Your task to perform on an android device: see creations saved in the google photos Image 0: 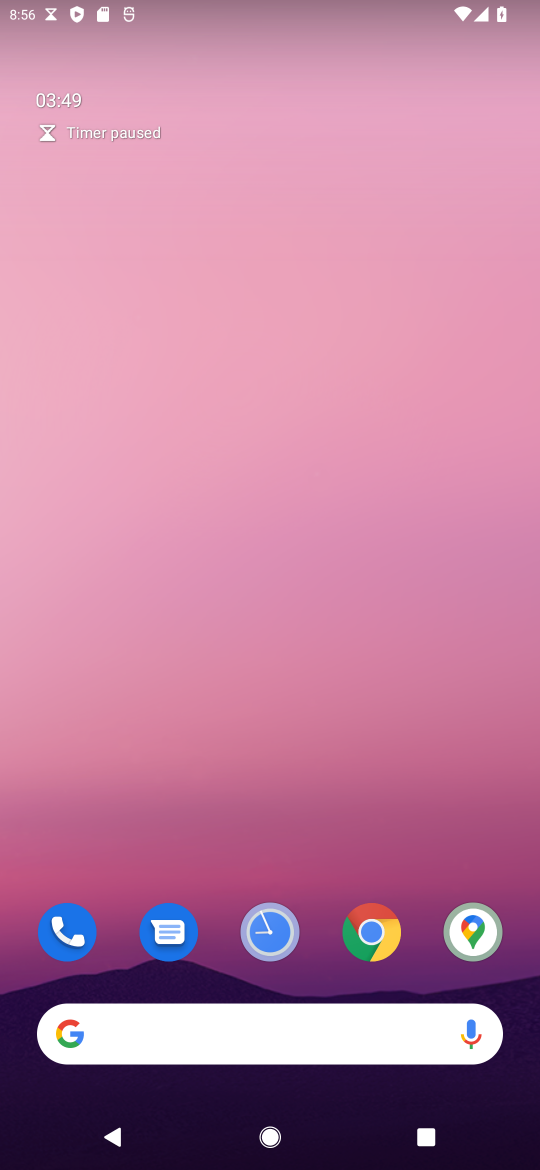
Step 0: drag from (223, 1056) to (404, 203)
Your task to perform on an android device: see creations saved in the google photos Image 1: 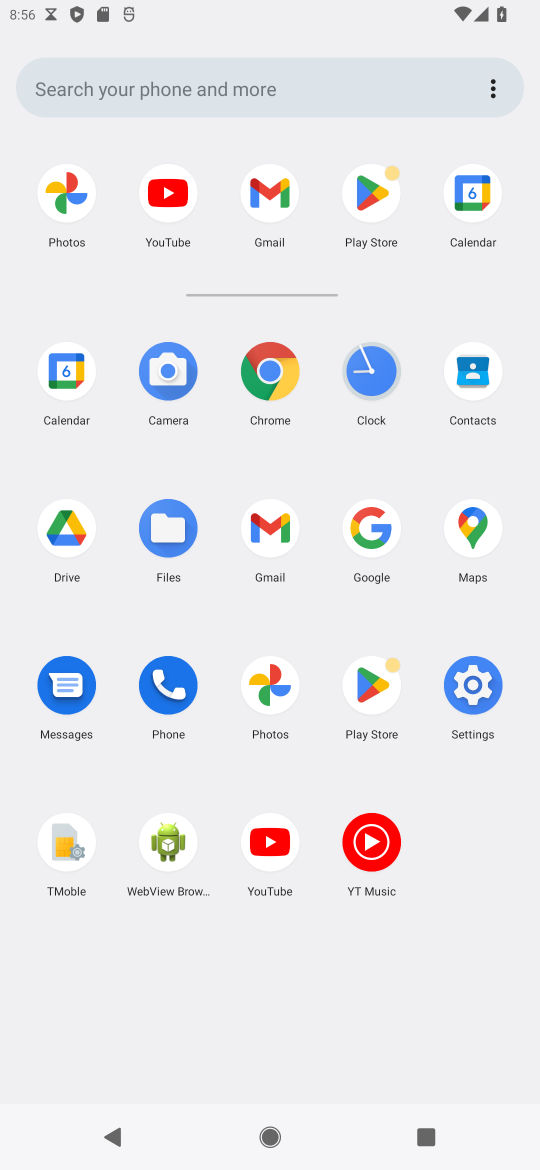
Step 1: click (64, 198)
Your task to perform on an android device: see creations saved in the google photos Image 2: 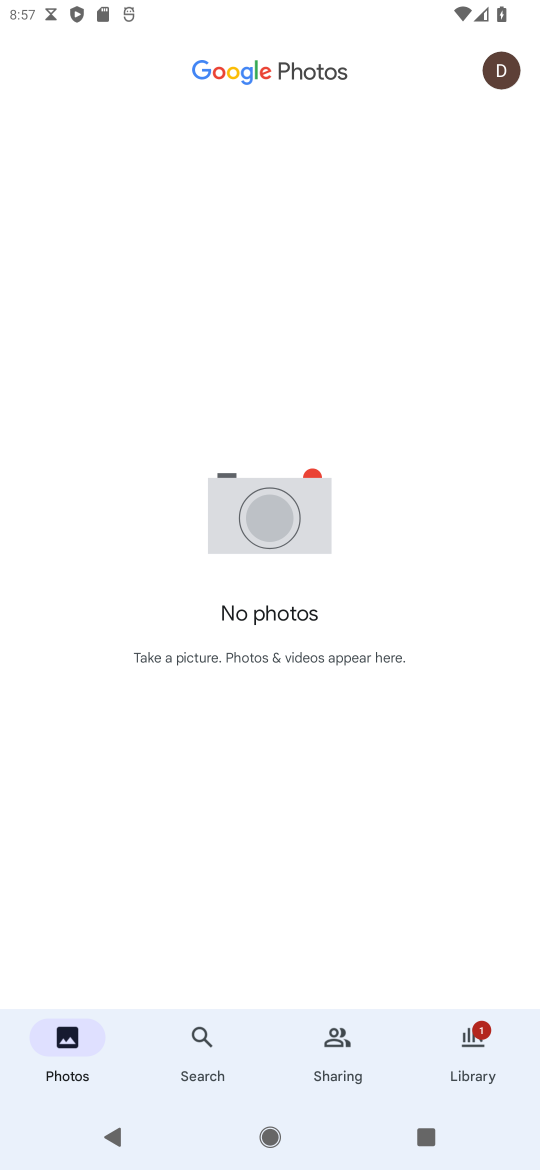
Step 2: click (340, 1030)
Your task to perform on an android device: see creations saved in the google photos Image 3: 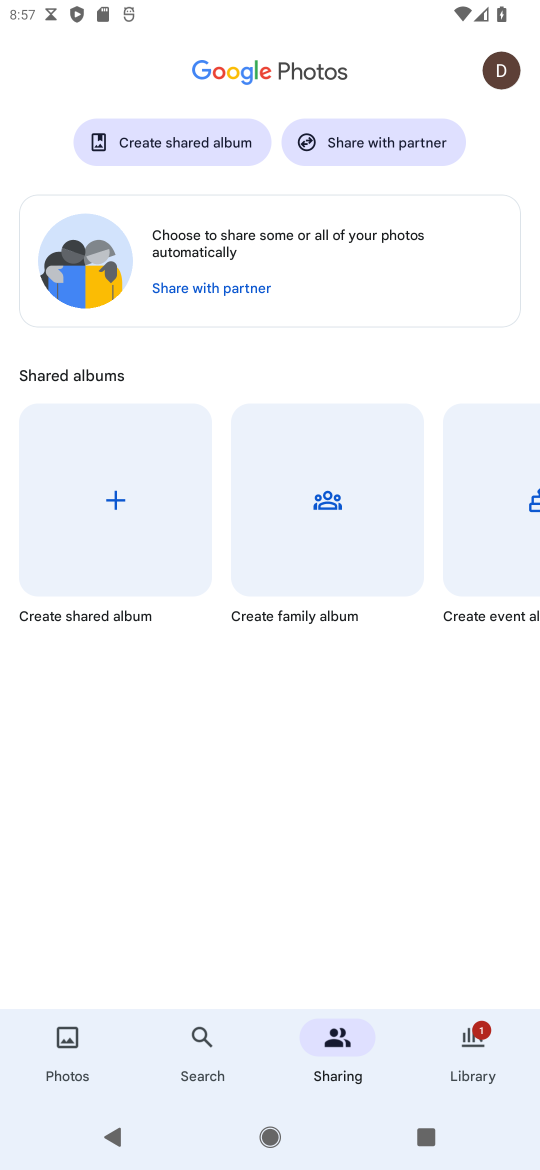
Step 3: click (473, 1043)
Your task to perform on an android device: see creations saved in the google photos Image 4: 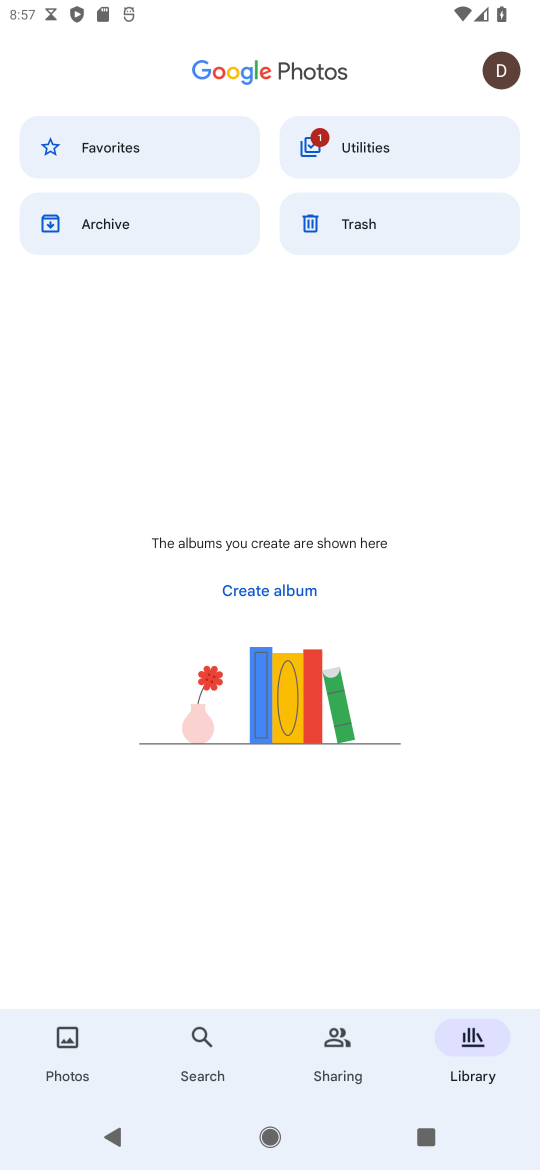
Step 4: click (327, 141)
Your task to perform on an android device: see creations saved in the google photos Image 5: 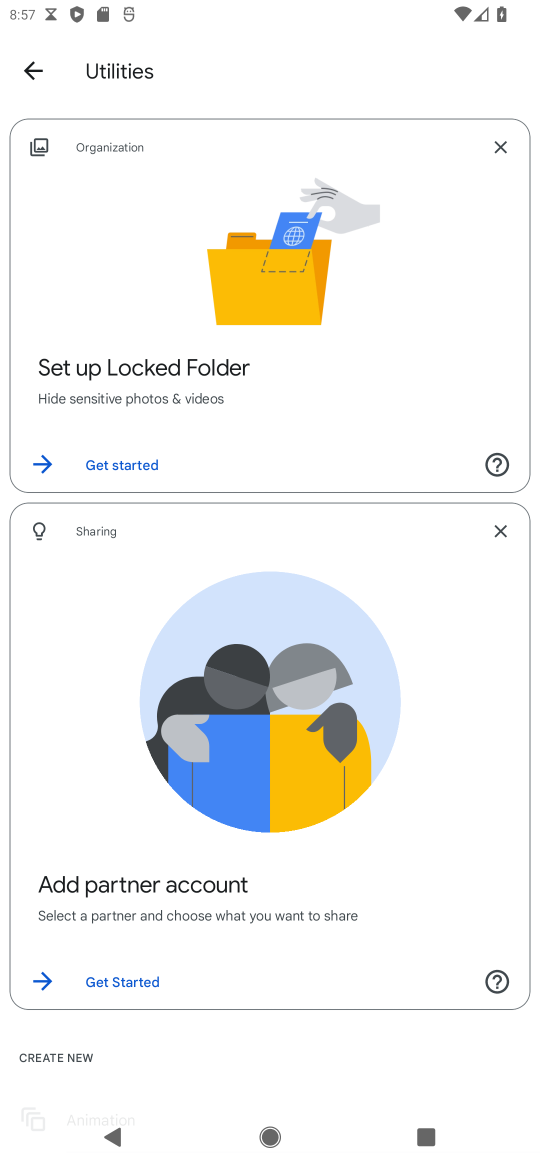
Step 5: task complete